Your task to perform on an android device: What is the speed of light? Image 0: 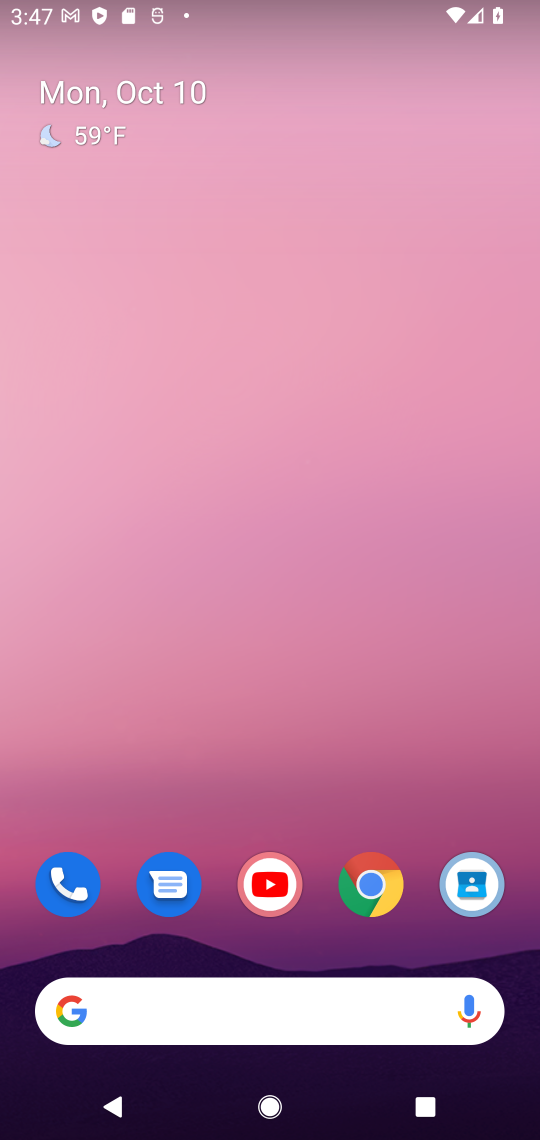
Step 0: click (362, 891)
Your task to perform on an android device: What is the speed of light? Image 1: 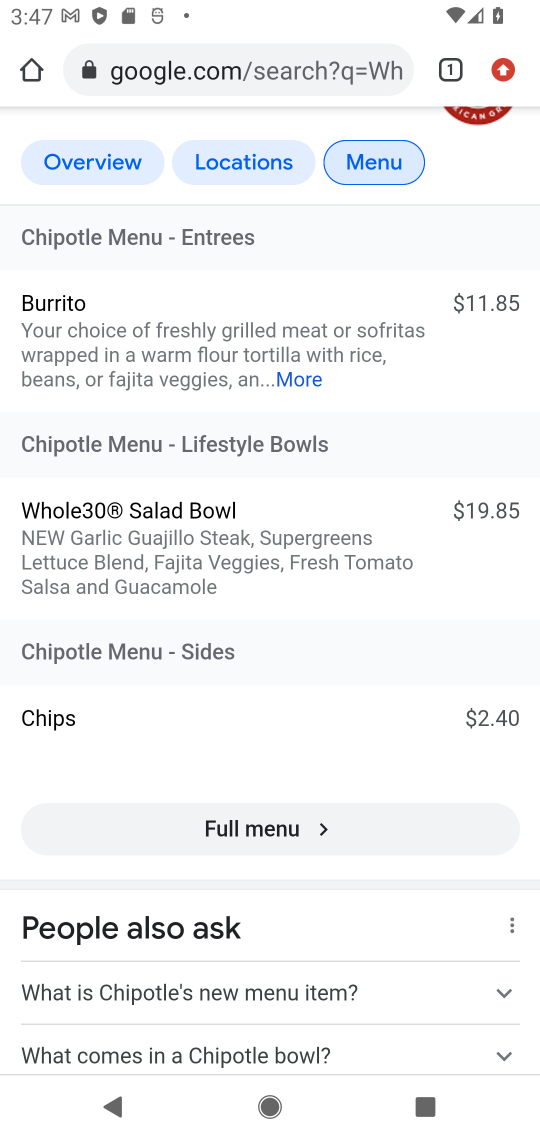
Step 1: click (379, 80)
Your task to perform on an android device: What is the speed of light? Image 2: 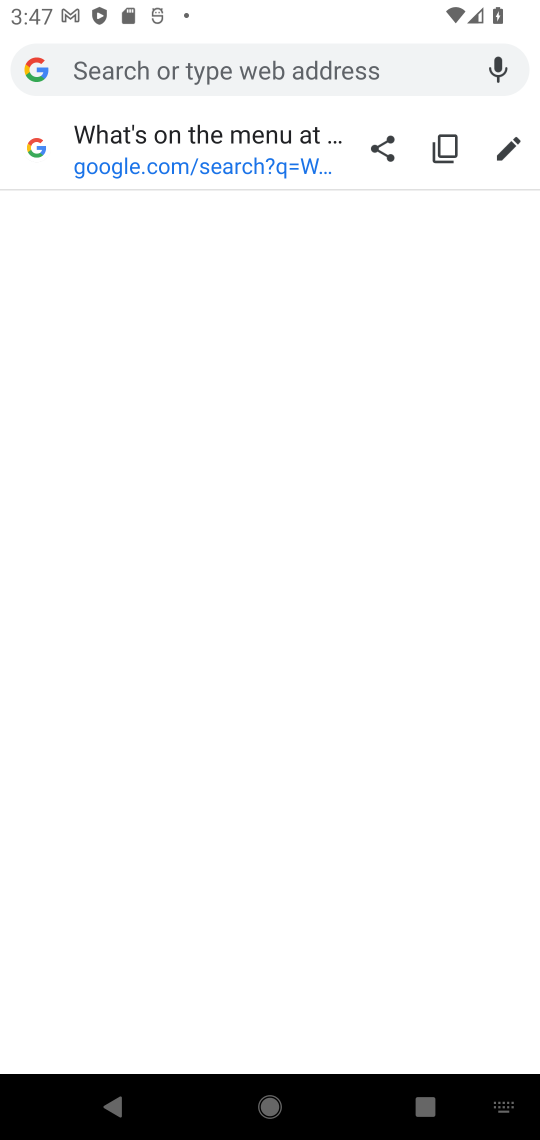
Step 2: type "What is the speed of light?"
Your task to perform on an android device: What is the speed of light? Image 3: 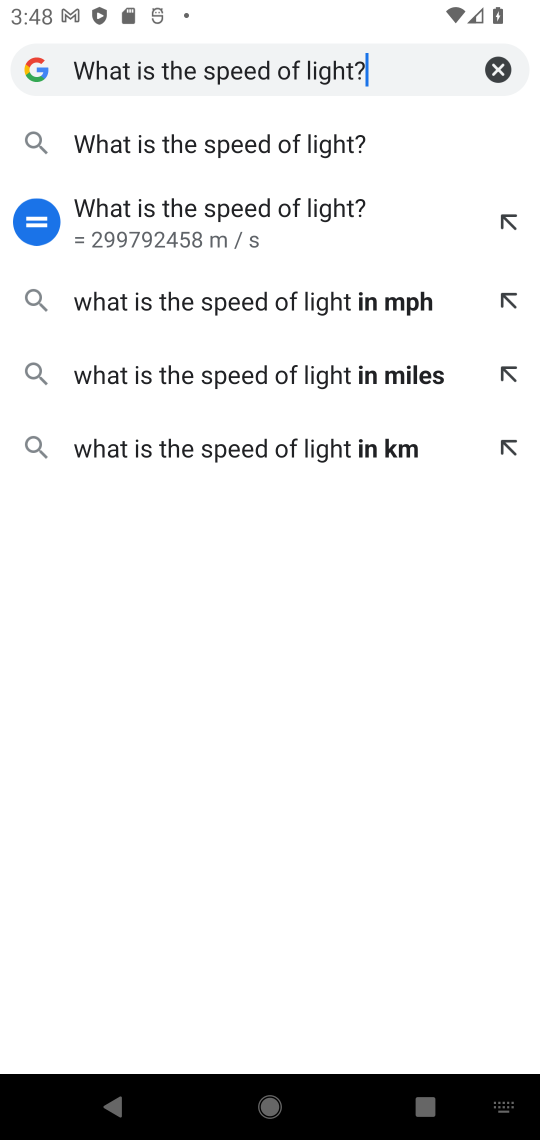
Step 3: click (172, 141)
Your task to perform on an android device: What is the speed of light? Image 4: 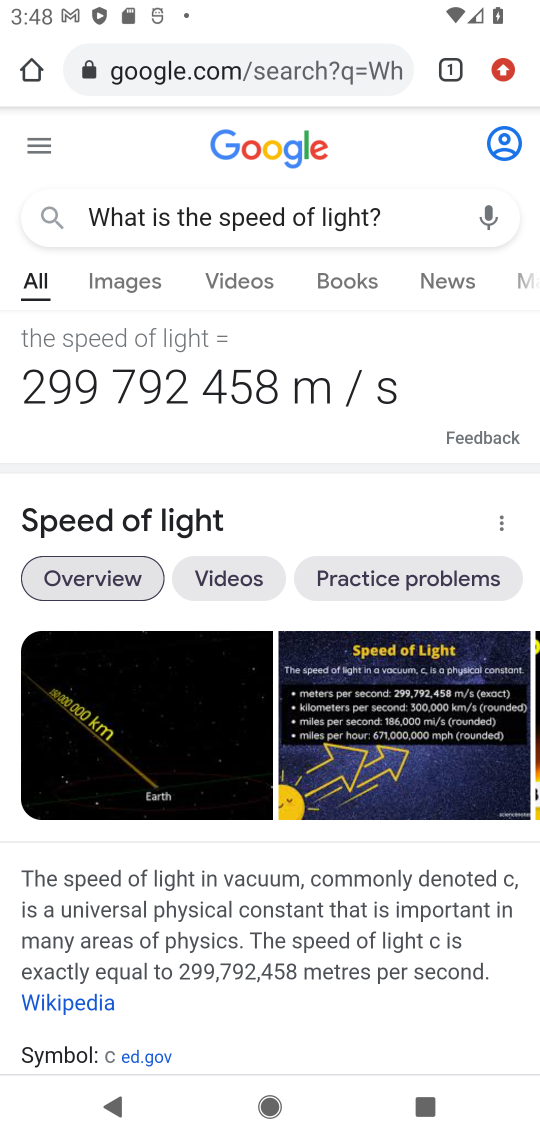
Step 4: task complete